Your task to perform on an android device: Open Google Chrome and click the shortcut for Amazon.com Image 0: 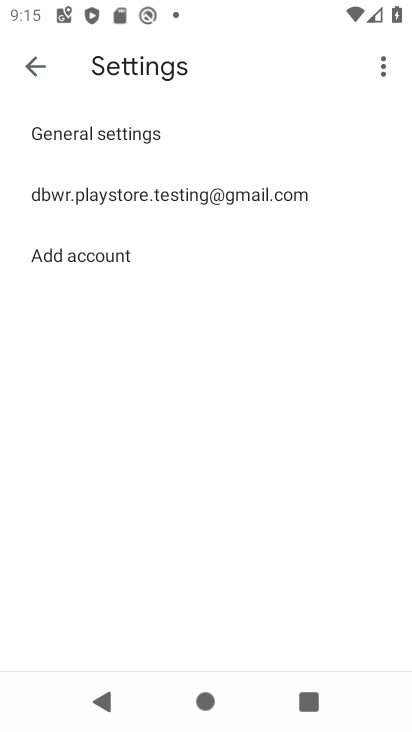
Step 0: press home button
Your task to perform on an android device: Open Google Chrome and click the shortcut for Amazon.com Image 1: 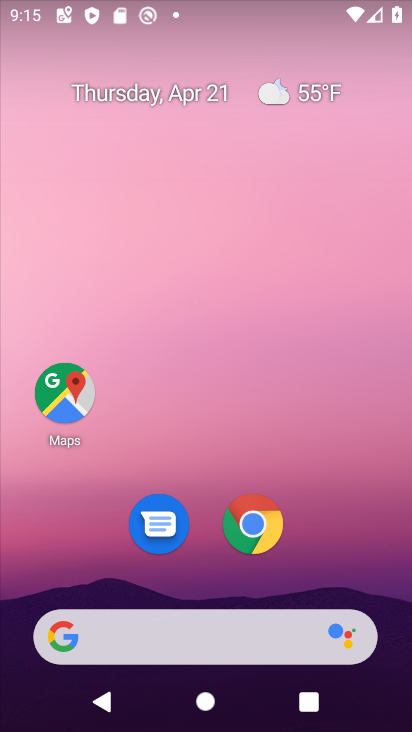
Step 1: click (262, 519)
Your task to perform on an android device: Open Google Chrome and click the shortcut for Amazon.com Image 2: 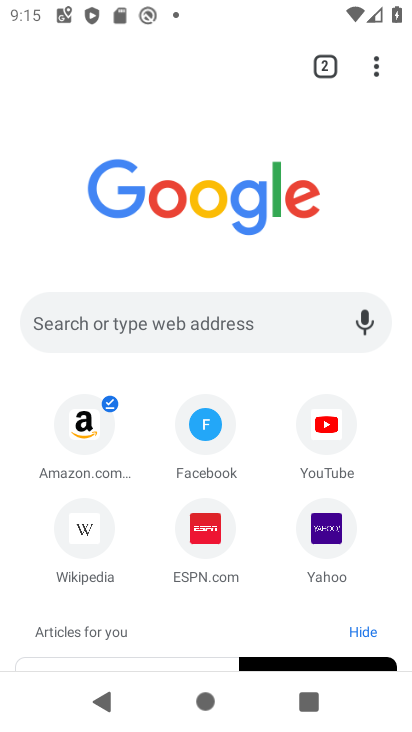
Step 2: click (78, 424)
Your task to perform on an android device: Open Google Chrome and click the shortcut for Amazon.com Image 3: 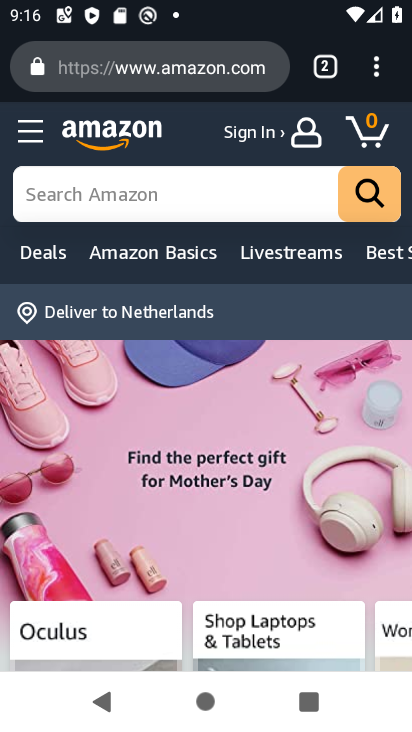
Step 3: task complete